Your task to perform on an android device: turn notification dots off Image 0: 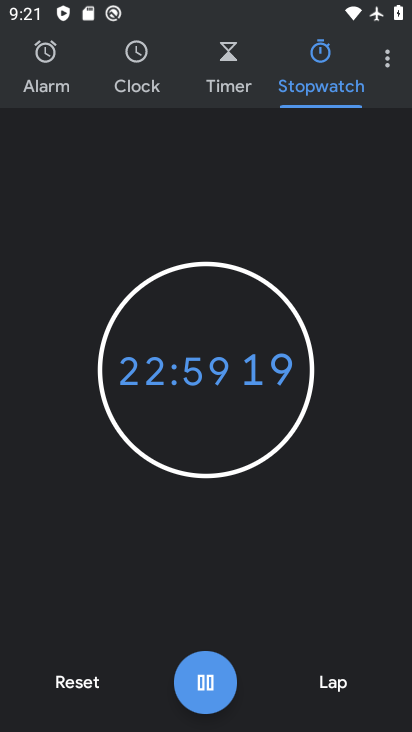
Step 0: press home button
Your task to perform on an android device: turn notification dots off Image 1: 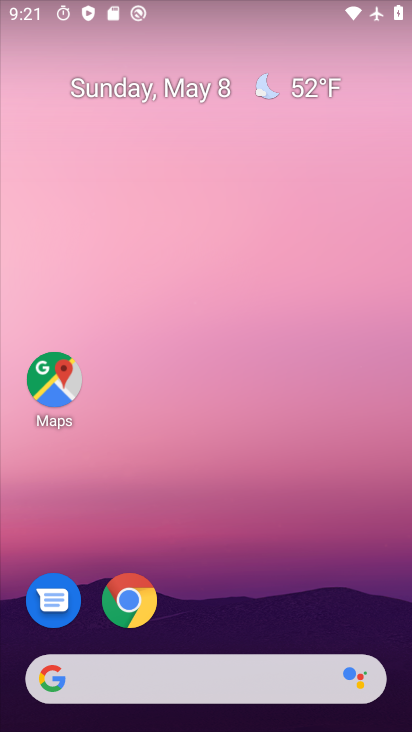
Step 1: drag from (252, 562) to (232, 114)
Your task to perform on an android device: turn notification dots off Image 2: 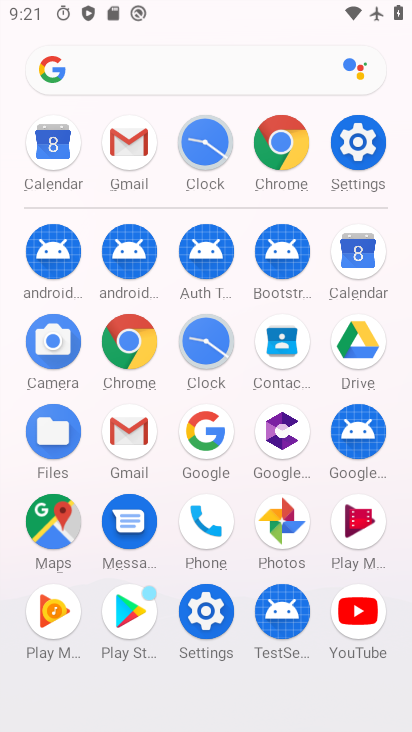
Step 2: click (364, 158)
Your task to perform on an android device: turn notification dots off Image 3: 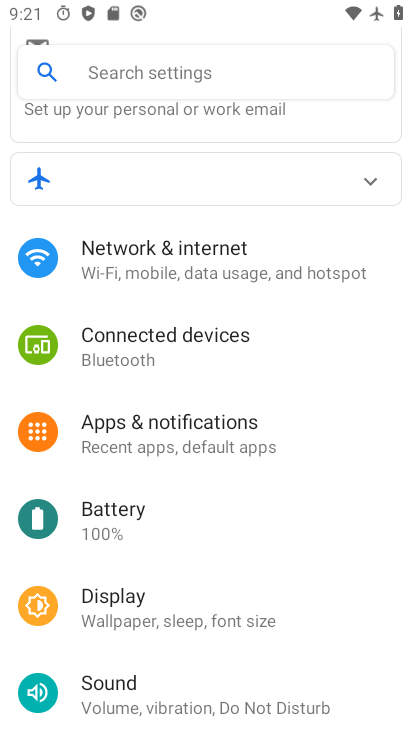
Step 3: click (192, 432)
Your task to perform on an android device: turn notification dots off Image 4: 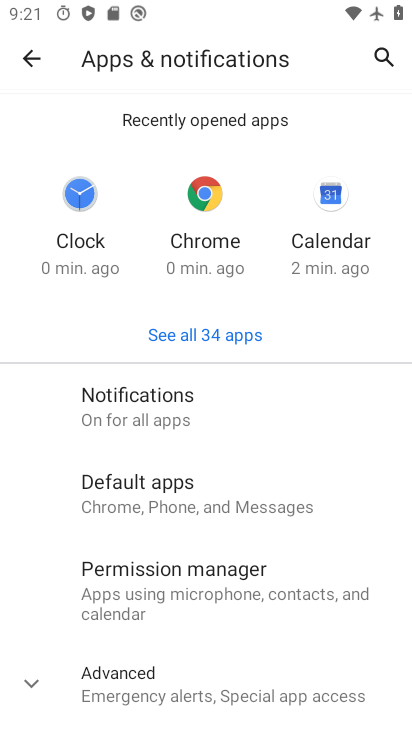
Step 4: click (189, 419)
Your task to perform on an android device: turn notification dots off Image 5: 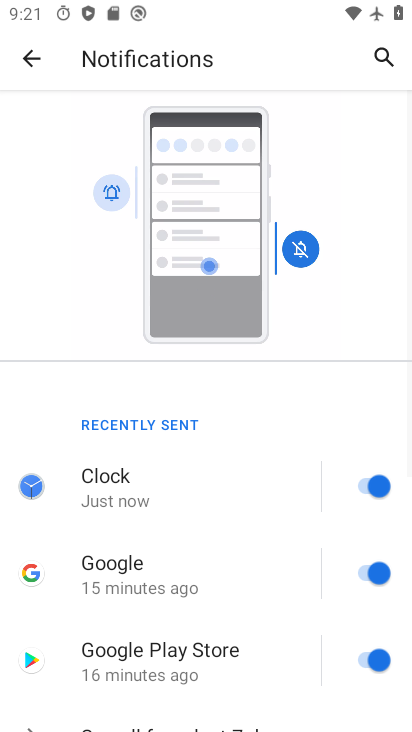
Step 5: drag from (243, 661) to (303, 316)
Your task to perform on an android device: turn notification dots off Image 6: 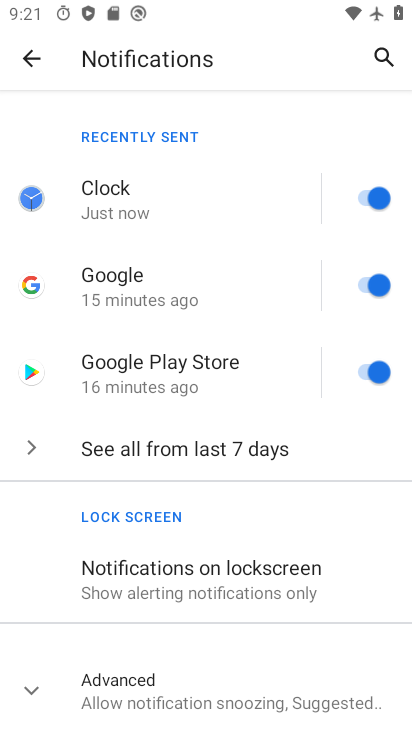
Step 6: click (33, 688)
Your task to perform on an android device: turn notification dots off Image 7: 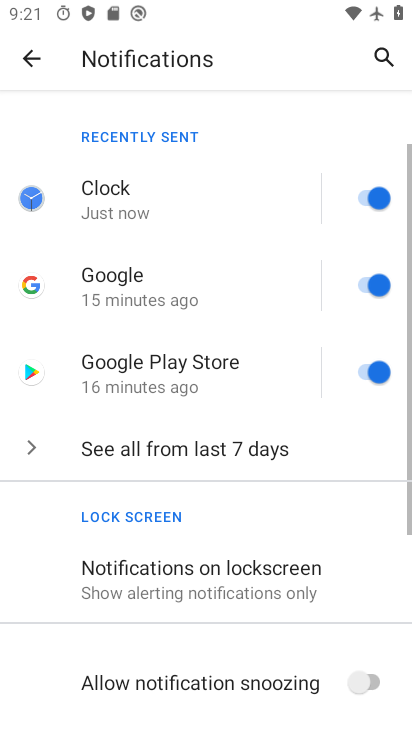
Step 7: drag from (198, 668) to (274, 283)
Your task to perform on an android device: turn notification dots off Image 8: 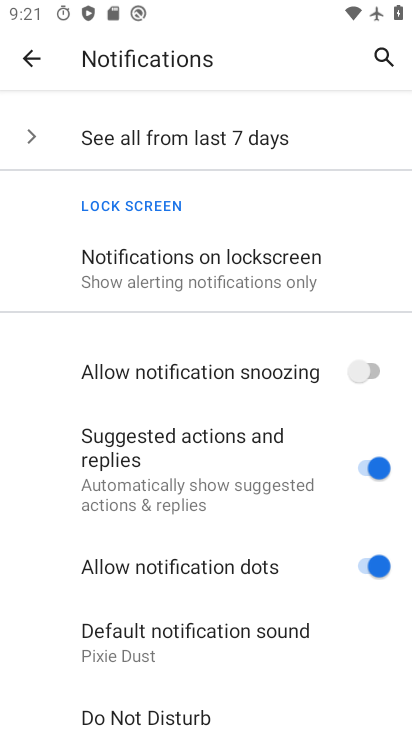
Step 8: click (378, 565)
Your task to perform on an android device: turn notification dots off Image 9: 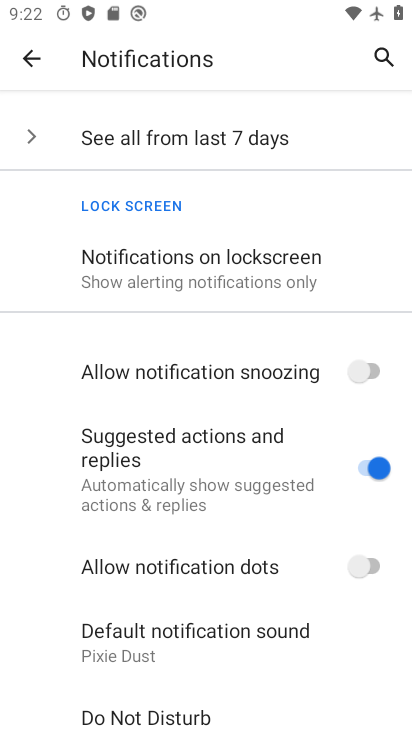
Step 9: task complete